Your task to perform on an android device: search for starred emails in the gmail app Image 0: 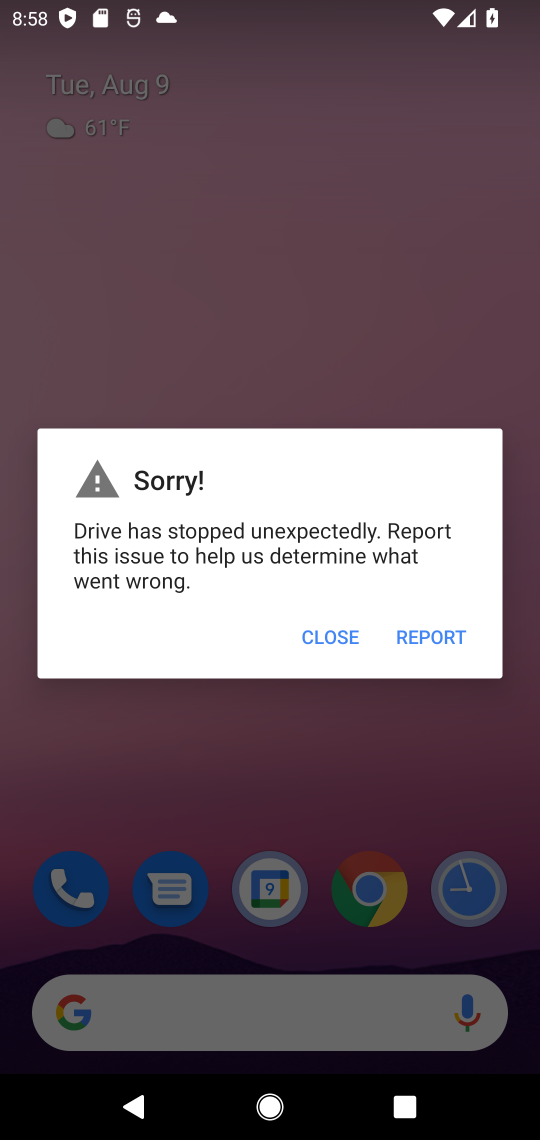
Step 0: click (337, 656)
Your task to perform on an android device: search for starred emails in the gmail app Image 1: 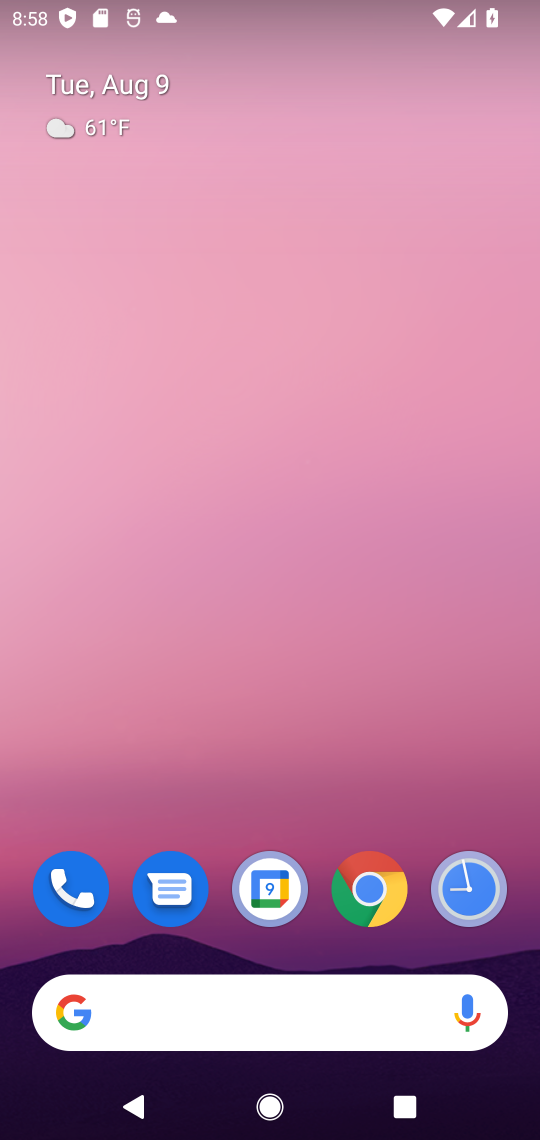
Step 1: drag from (338, 1038) to (38, 0)
Your task to perform on an android device: search for starred emails in the gmail app Image 2: 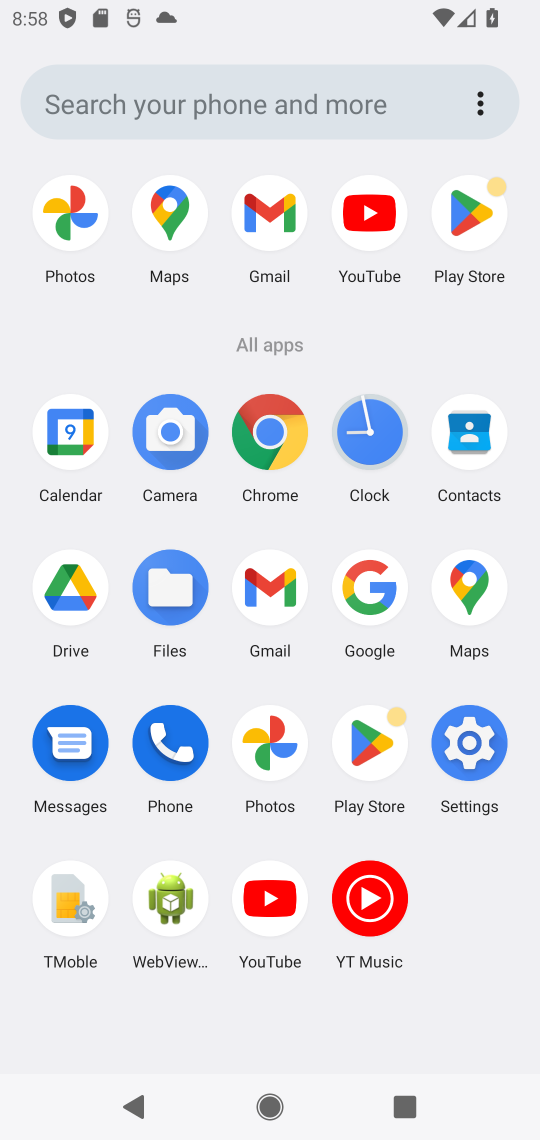
Step 2: click (255, 216)
Your task to perform on an android device: search for starred emails in the gmail app Image 3: 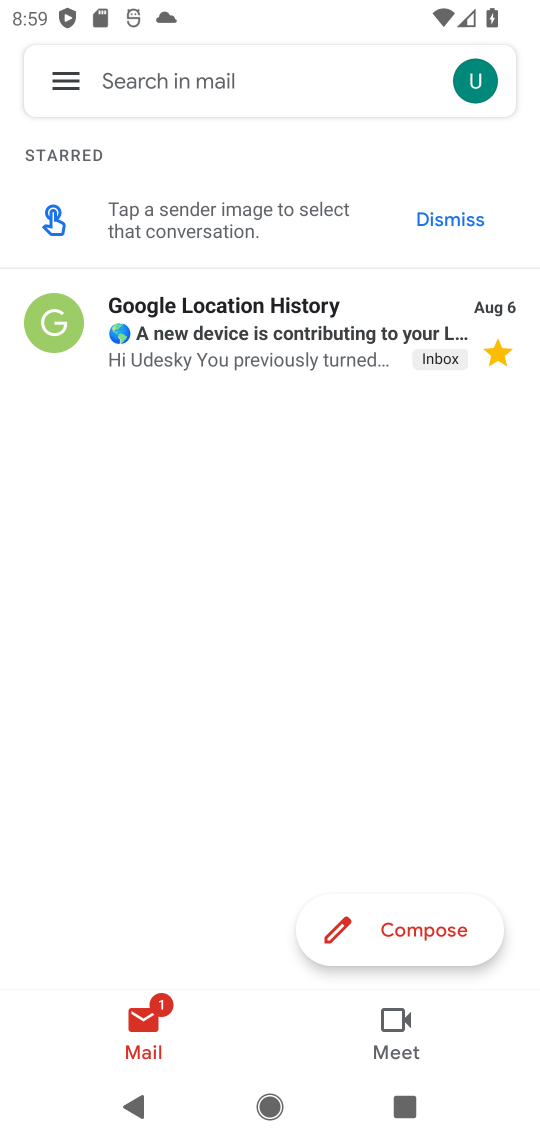
Step 3: click (266, 337)
Your task to perform on an android device: search for starred emails in the gmail app Image 4: 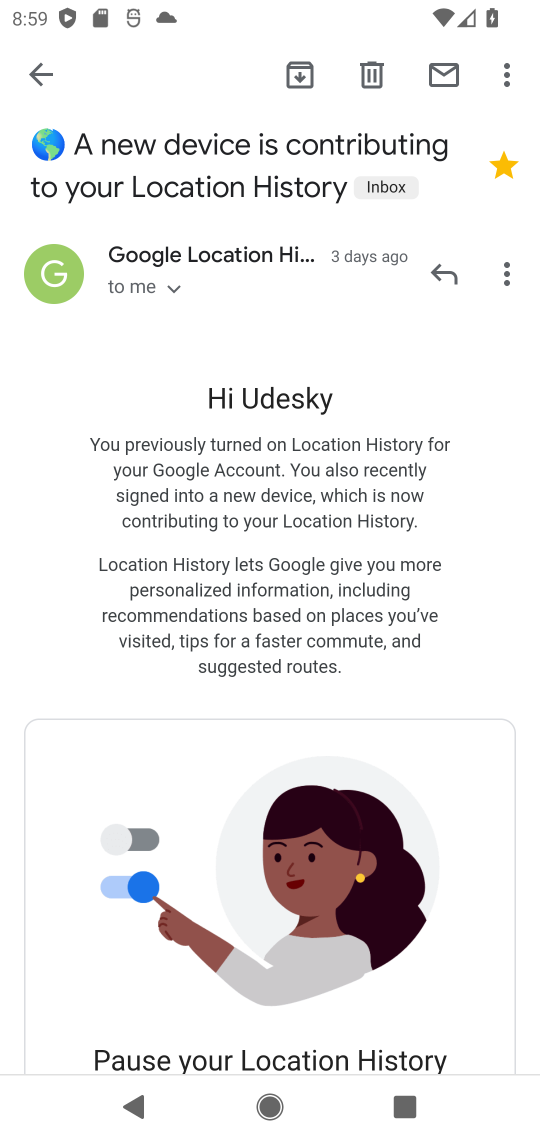
Step 4: task complete